Your task to perform on an android device: Open Maps and search for coffee Image 0: 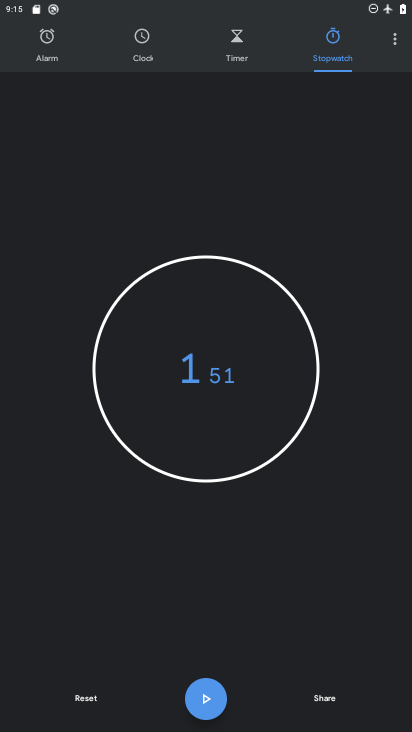
Step 0: press home button
Your task to perform on an android device: Open Maps and search for coffee Image 1: 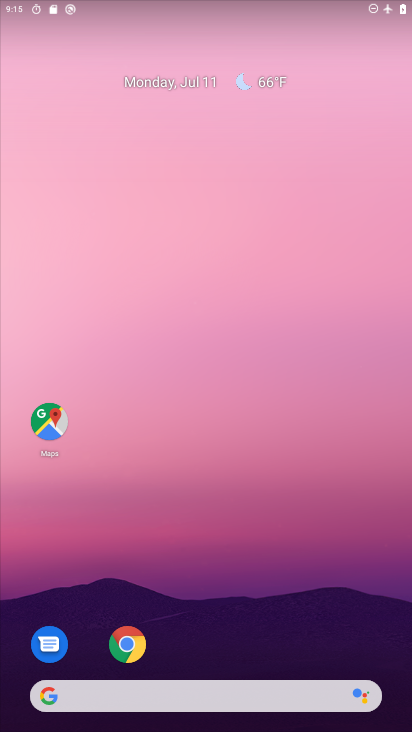
Step 1: click (53, 417)
Your task to perform on an android device: Open Maps and search for coffee Image 2: 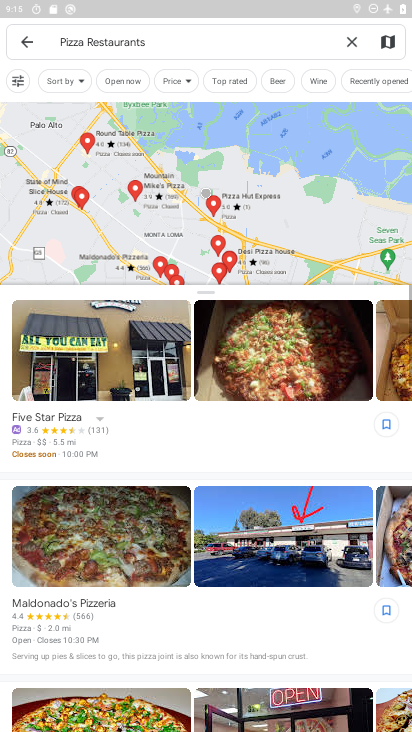
Step 2: click (155, 39)
Your task to perform on an android device: Open Maps and search for coffee Image 3: 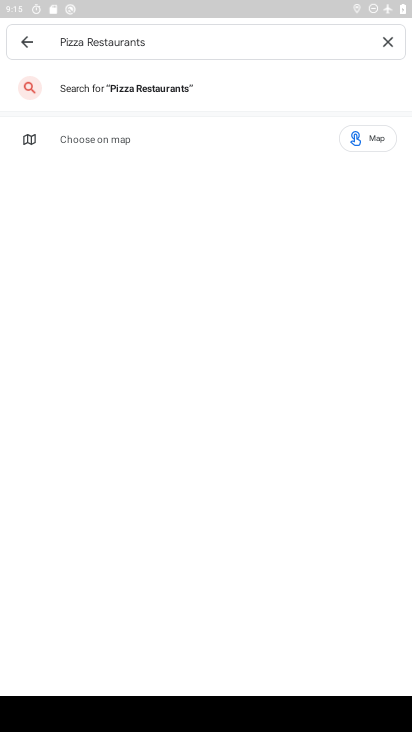
Step 3: click (394, 35)
Your task to perform on an android device: Open Maps and search for coffee Image 4: 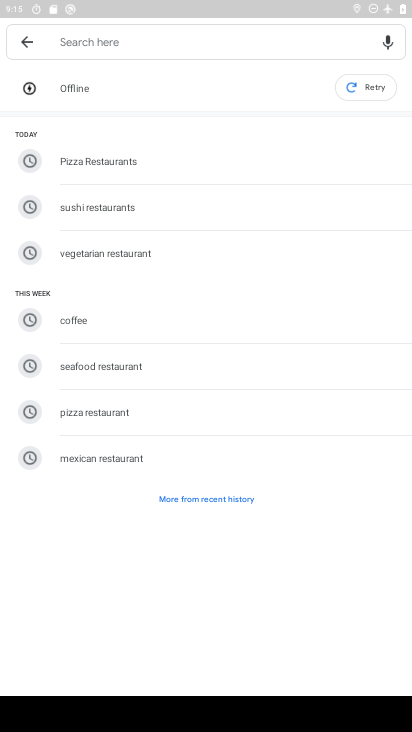
Step 4: type "coffee"
Your task to perform on an android device: Open Maps and search for coffee Image 5: 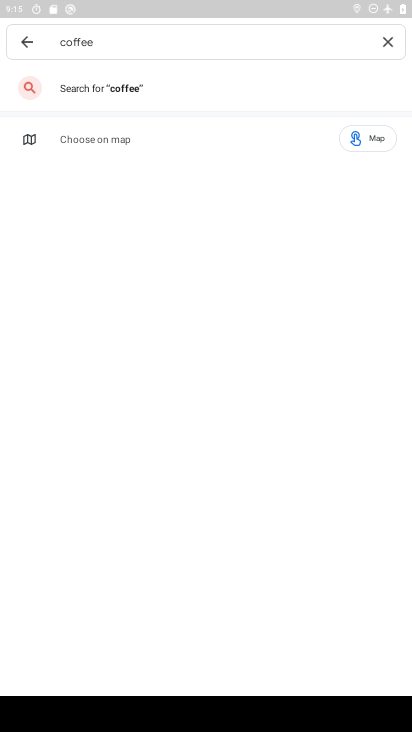
Step 5: click (129, 87)
Your task to perform on an android device: Open Maps and search for coffee Image 6: 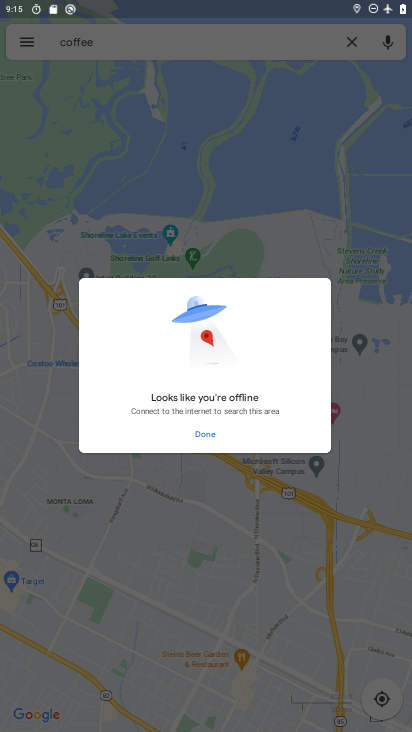
Step 6: task complete